Your task to perform on an android device: Find coffee shops on Maps Image 0: 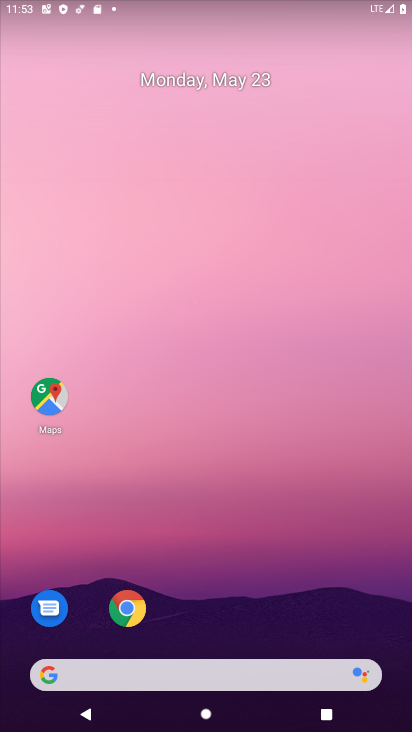
Step 0: press home button
Your task to perform on an android device: Find coffee shops on Maps Image 1: 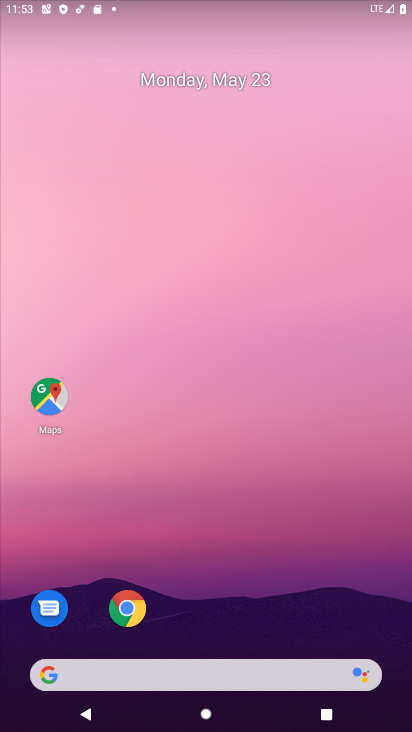
Step 1: click (51, 393)
Your task to perform on an android device: Find coffee shops on Maps Image 2: 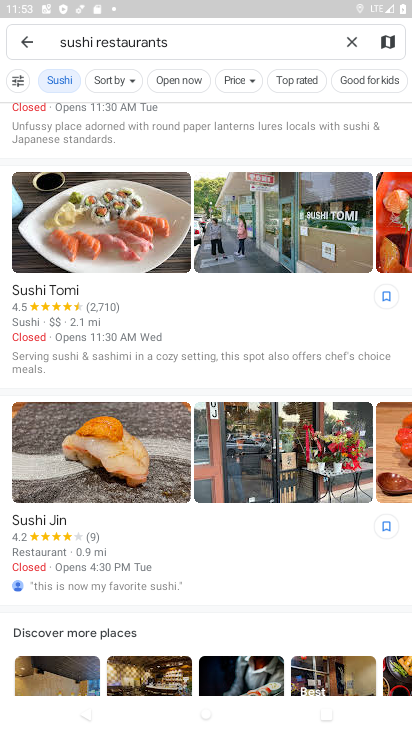
Step 2: press home button
Your task to perform on an android device: Find coffee shops on Maps Image 3: 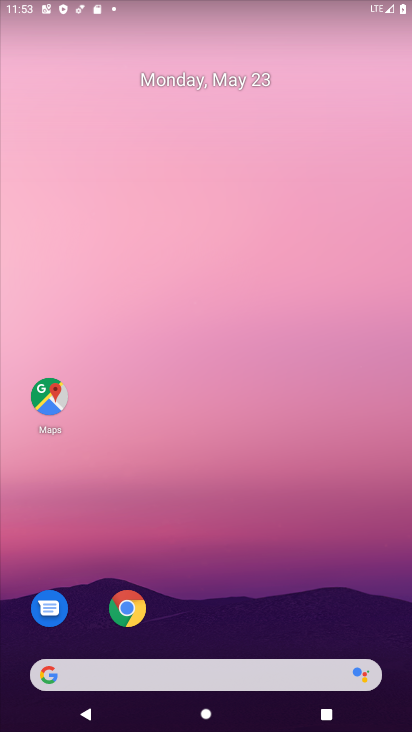
Step 3: click (47, 391)
Your task to perform on an android device: Find coffee shops on Maps Image 4: 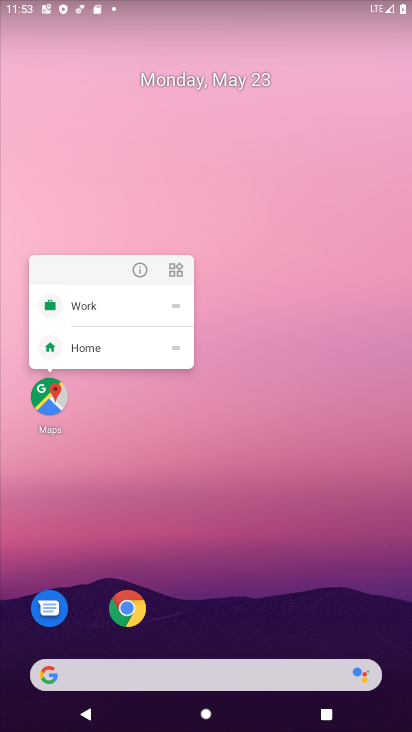
Step 4: click (267, 603)
Your task to perform on an android device: Find coffee shops on Maps Image 5: 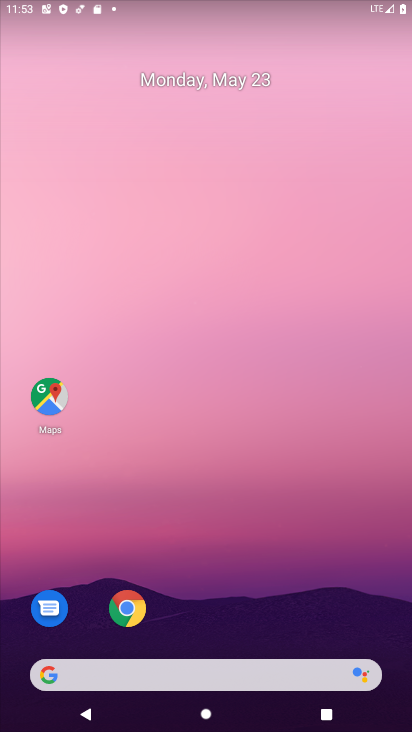
Step 5: drag from (295, 656) to (291, 33)
Your task to perform on an android device: Find coffee shops on Maps Image 6: 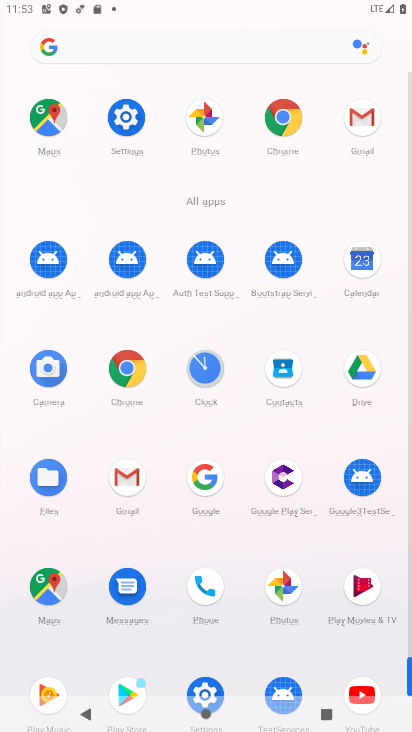
Step 6: click (49, 586)
Your task to perform on an android device: Find coffee shops on Maps Image 7: 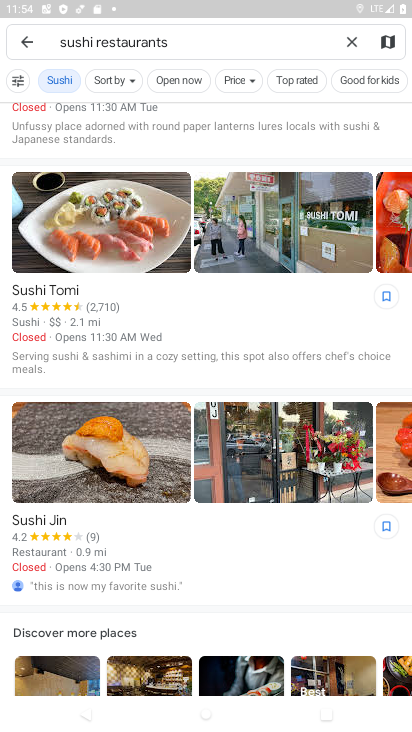
Step 7: click (353, 42)
Your task to perform on an android device: Find coffee shops on Maps Image 8: 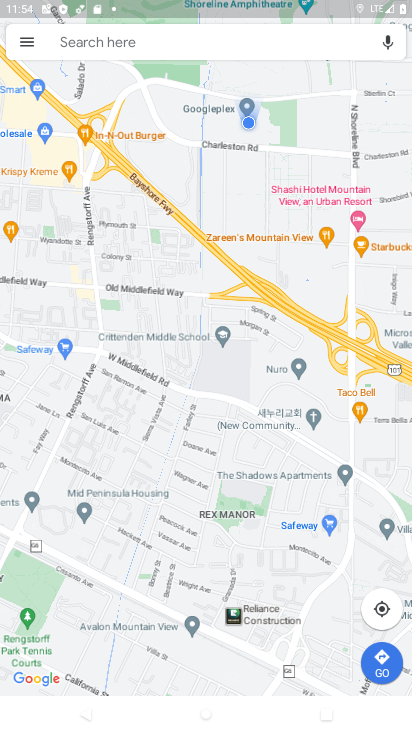
Step 8: click (79, 37)
Your task to perform on an android device: Find coffee shops on Maps Image 9: 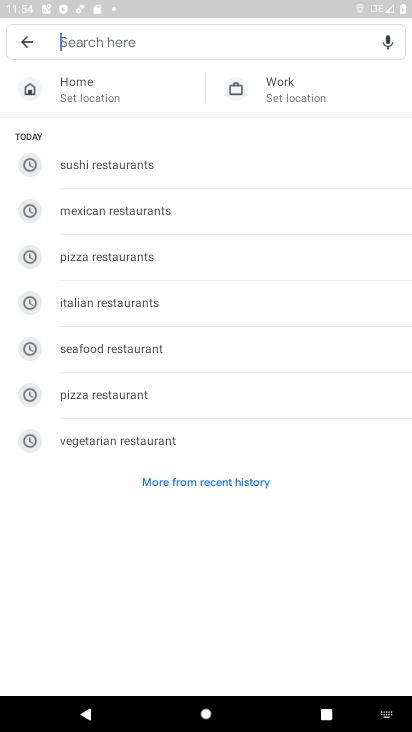
Step 9: type "coffee"
Your task to perform on an android device: Find coffee shops on Maps Image 10: 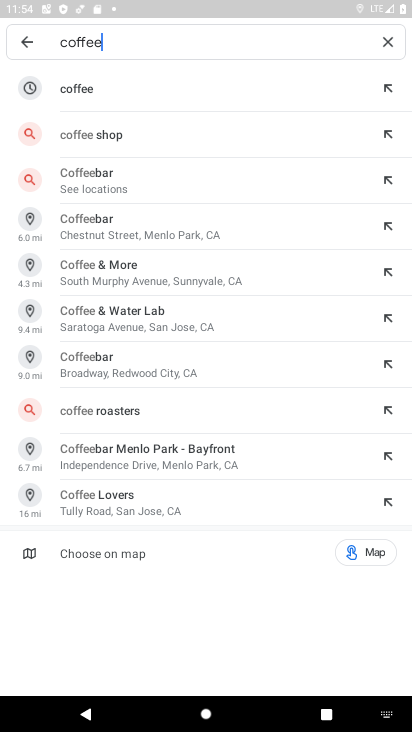
Step 10: click (109, 85)
Your task to perform on an android device: Find coffee shops on Maps Image 11: 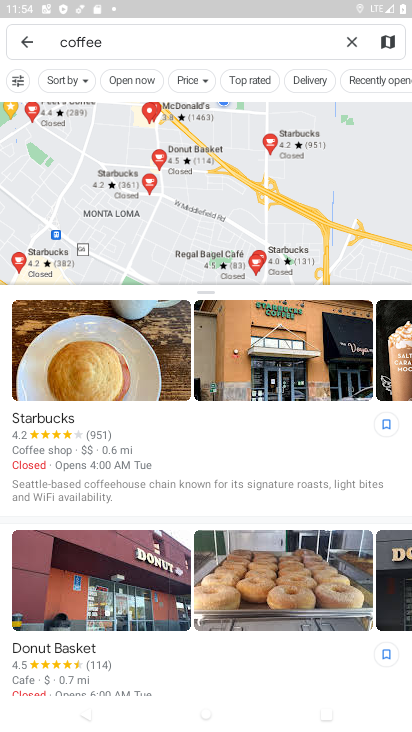
Step 11: drag from (206, 506) to (207, 54)
Your task to perform on an android device: Find coffee shops on Maps Image 12: 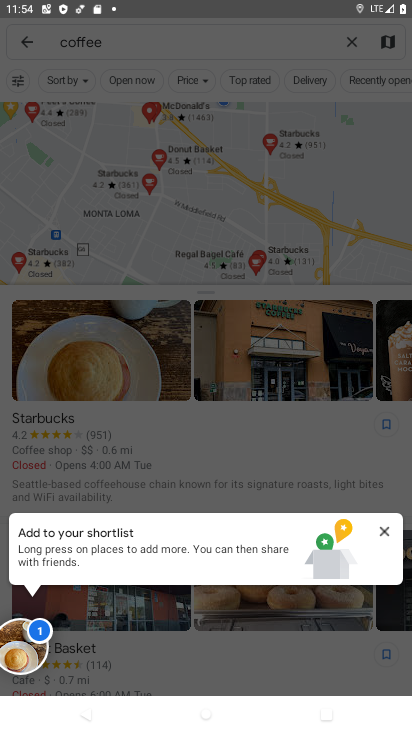
Step 12: click (383, 526)
Your task to perform on an android device: Find coffee shops on Maps Image 13: 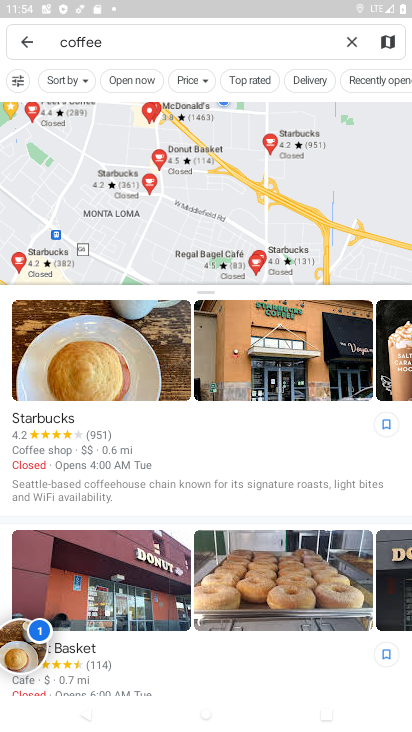
Step 13: task complete